Your task to perform on an android device: turn off translation in the chrome app Image 0: 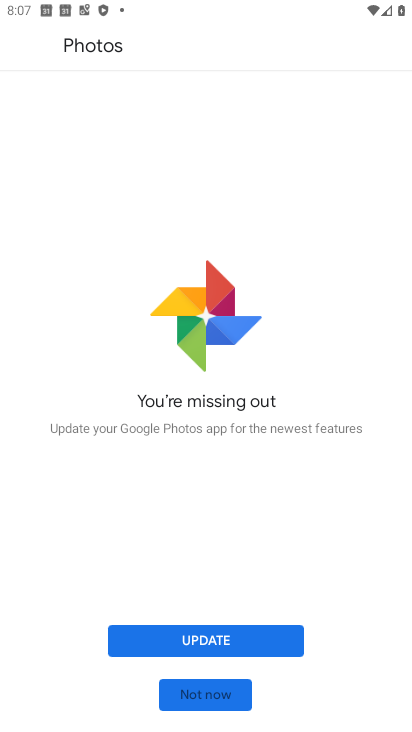
Step 0: press back button
Your task to perform on an android device: turn off translation in the chrome app Image 1: 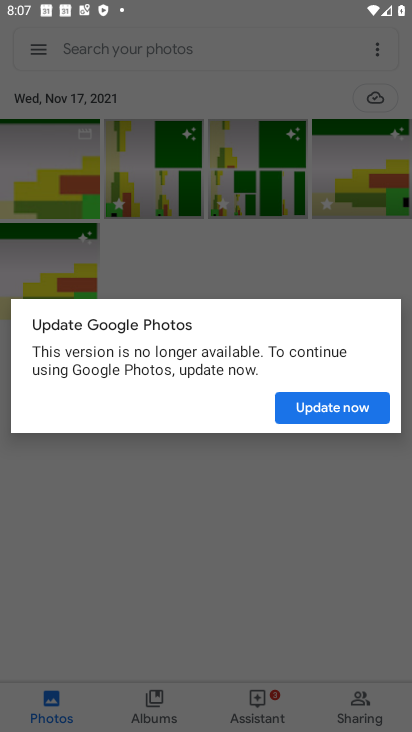
Step 1: press back button
Your task to perform on an android device: turn off translation in the chrome app Image 2: 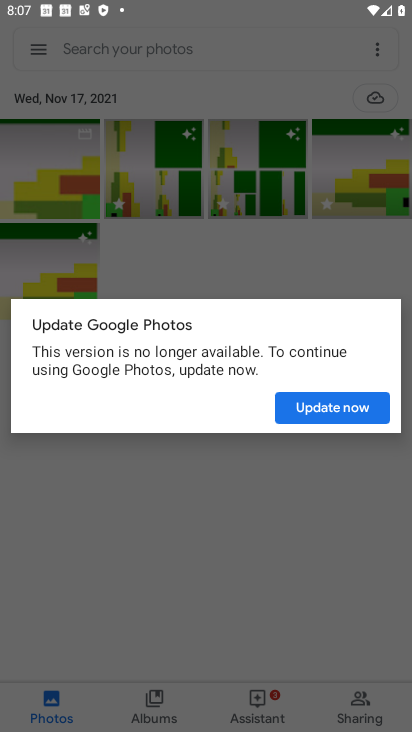
Step 2: press home button
Your task to perform on an android device: turn off translation in the chrome app Image 3: 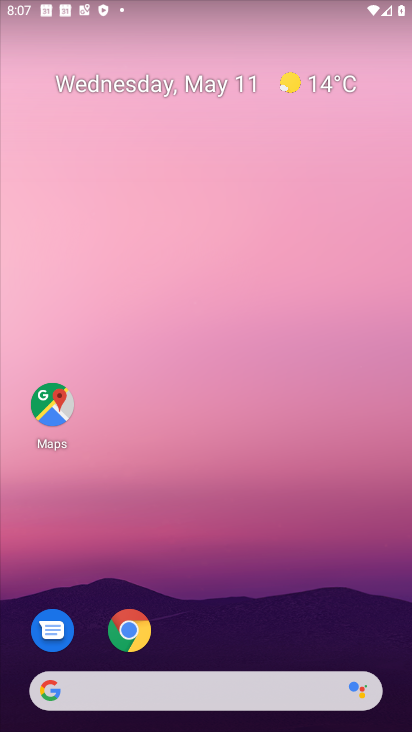
Step 3: click (136, 616)
Your task to perform on an android device: turn off translation in the chrome app Image 4: 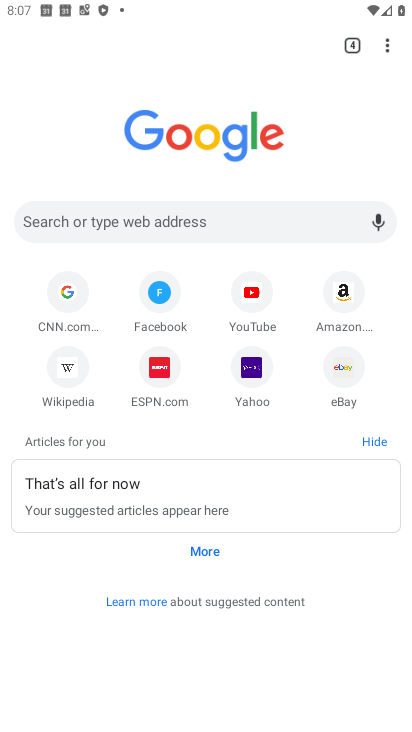
Step 4: click (384, 43)
Your task to perform on an android device: turn off translation in the chrome app Image 5: 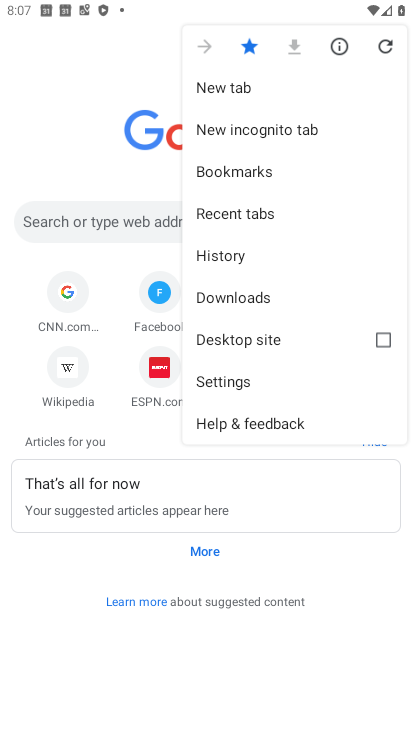
Step 5: click (224, 379)
Your task to perform on an android device: turn off translation in the chrome app Image 6: 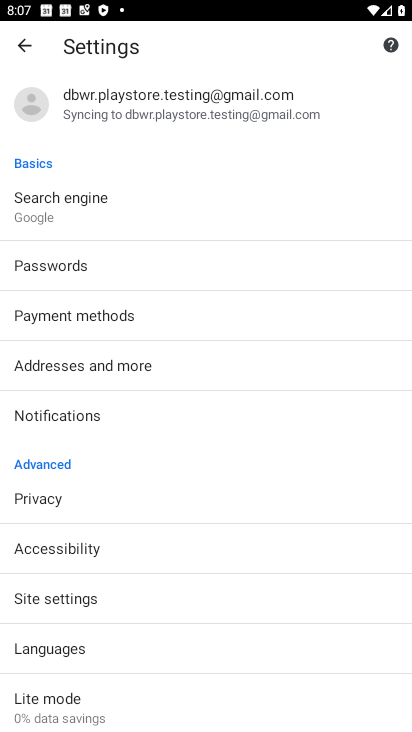
Step 6: click (45, 648)
Your task to perform on an android device: turn off translation in the chrome app Image 7: 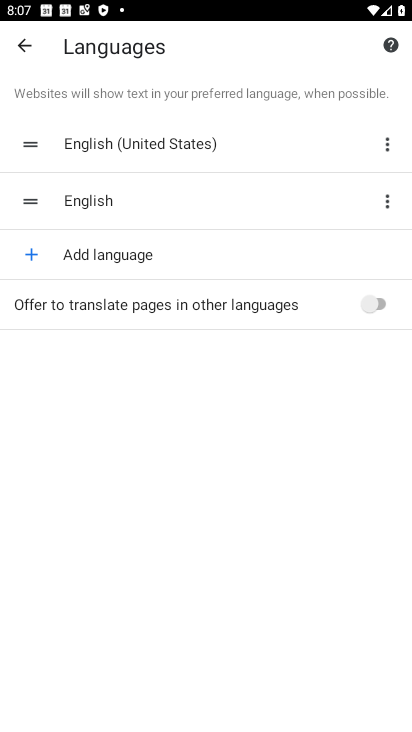
Step 7: task complete